Your task to perform on an android device: empty trash in the gmail app Image 0: 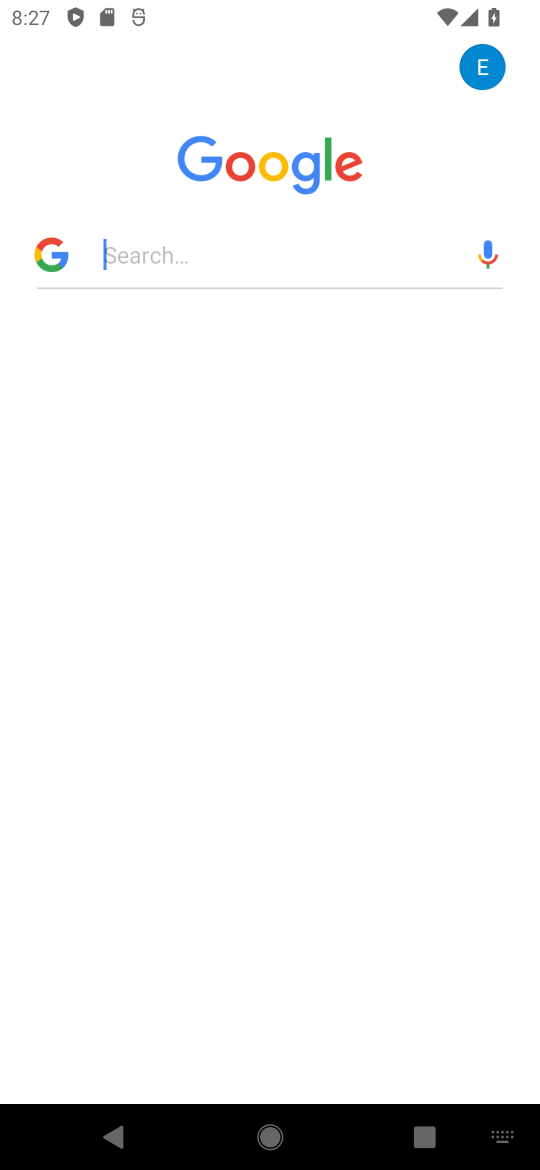
Step 0: press home button
Your task to perform on an android device: empty trash in the gmail app Image 1: 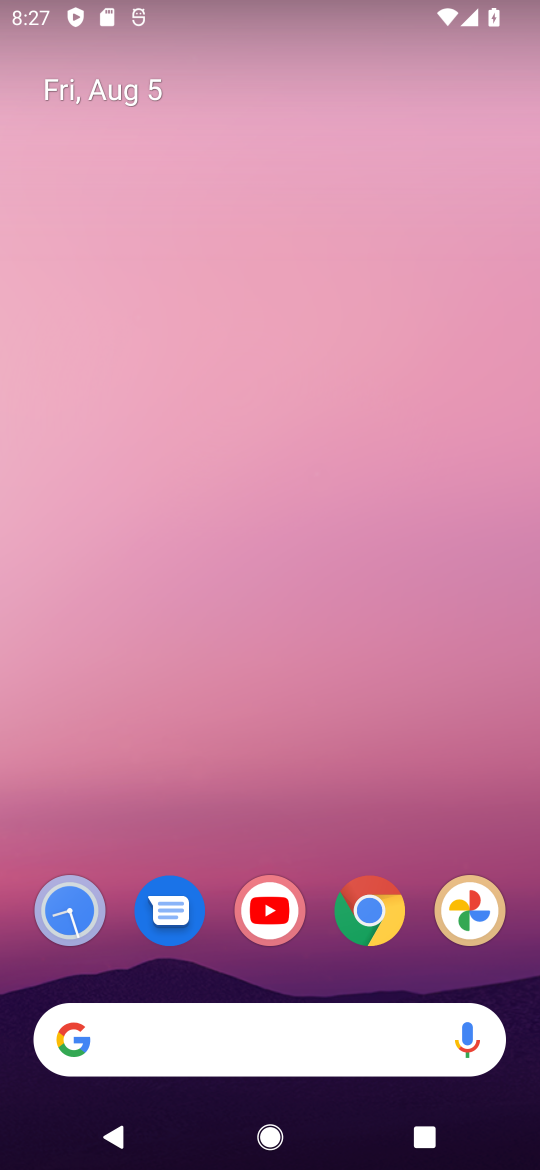
Step 1: drag from (274, 1027) to (503, 143)
Your task to perform on an android device: empty trash in the gmail app Image 2: 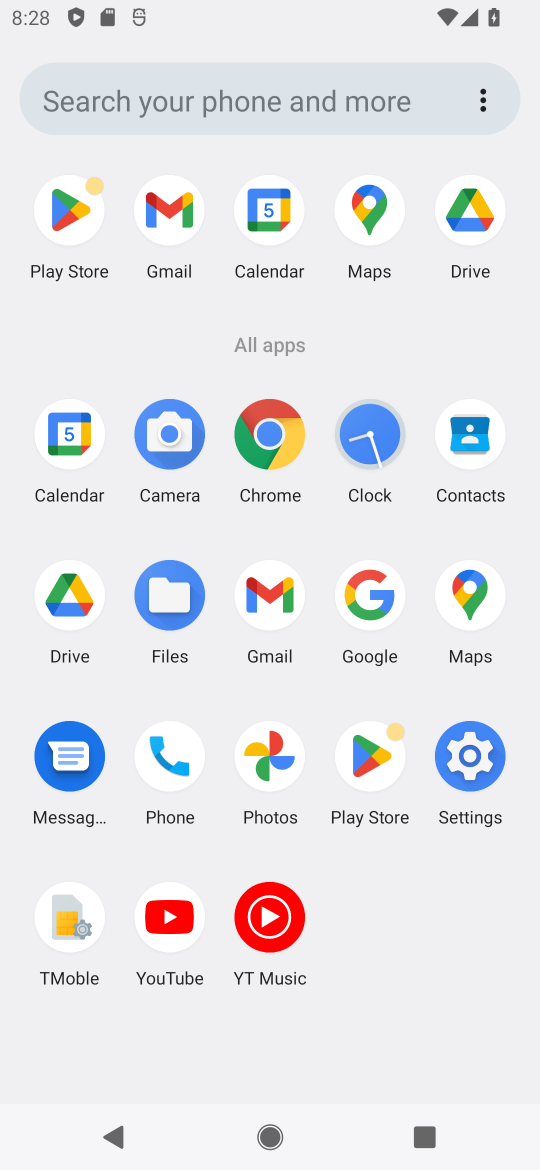
Step 2: click (171, 215)
Your task to perform on an android device: empty trash in the gmail app Image 3: 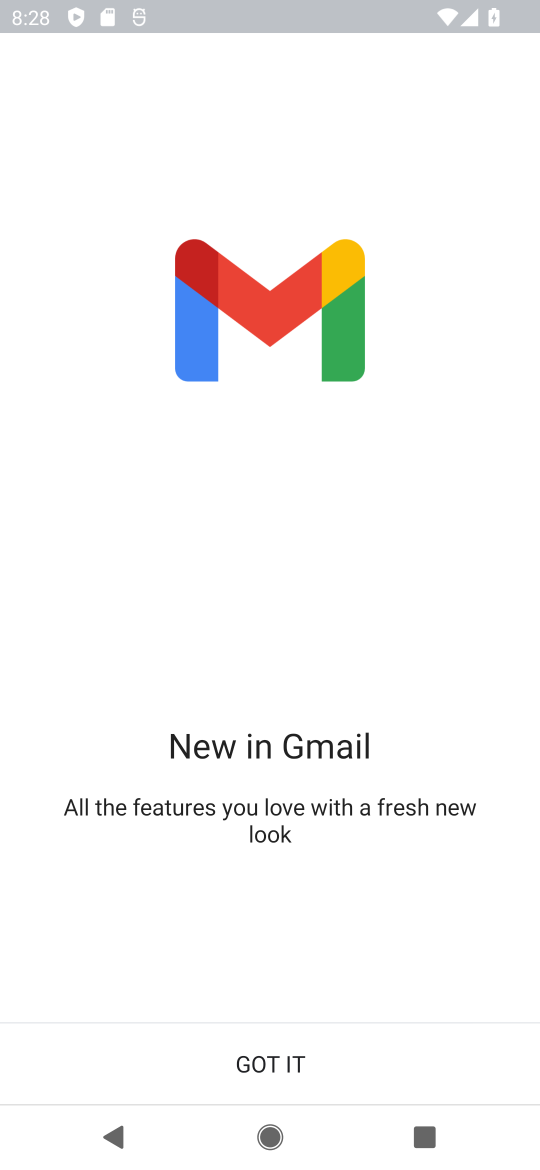
Step 3: click (272, 1070)
Your task to perform on an android device: empty trash in the gmail app Image 4: 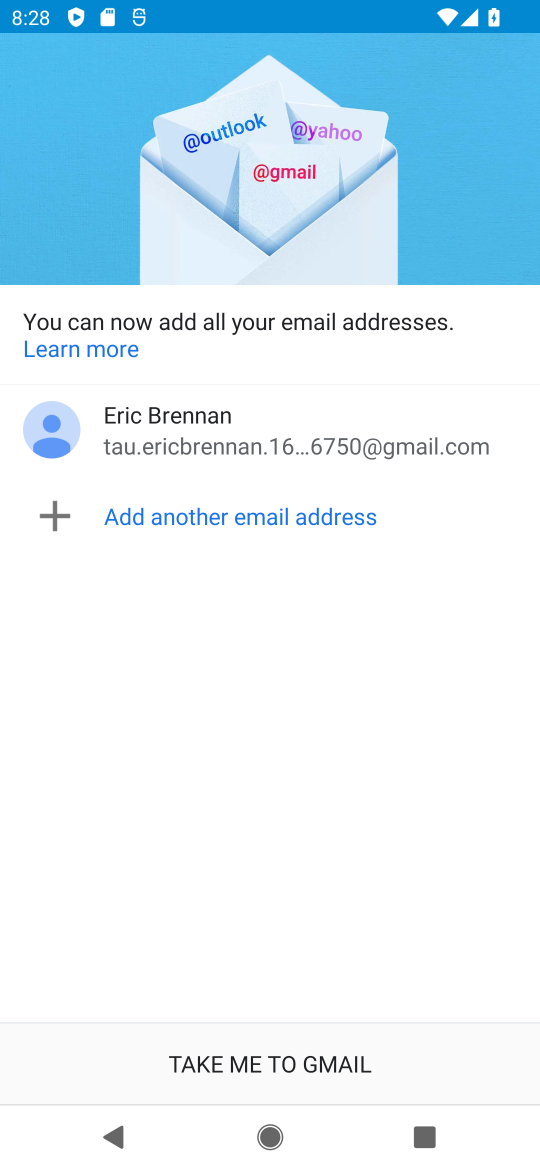
Step 4: click (272, 1070)
Your task to perform on an android device: empty trash in the gmail app Image 5: 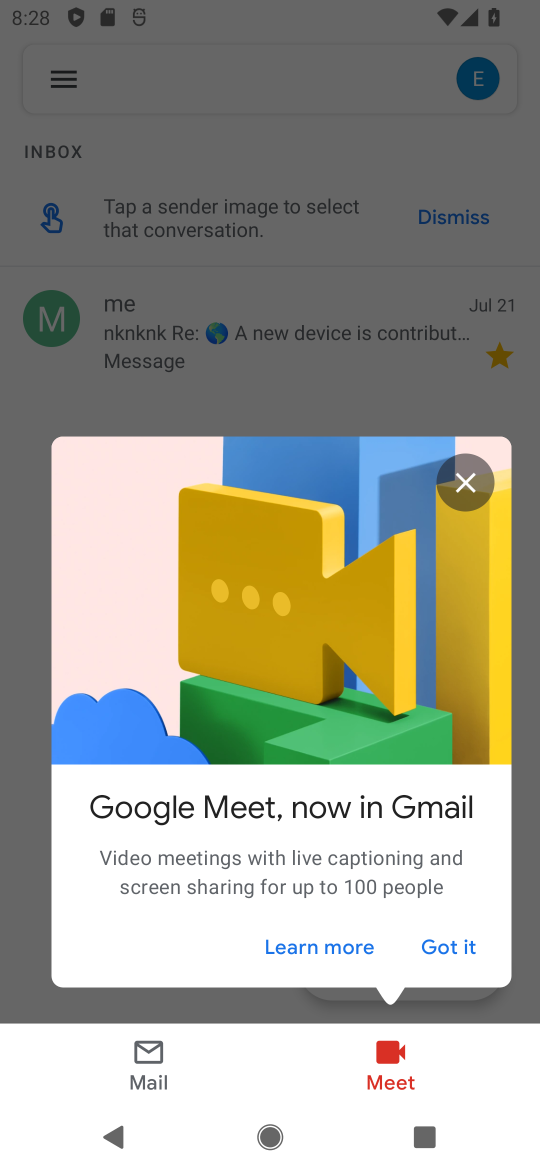
Step 5: click (465, 485)
Your task to perform on an android device: empty trash in the gmail app Image 6: 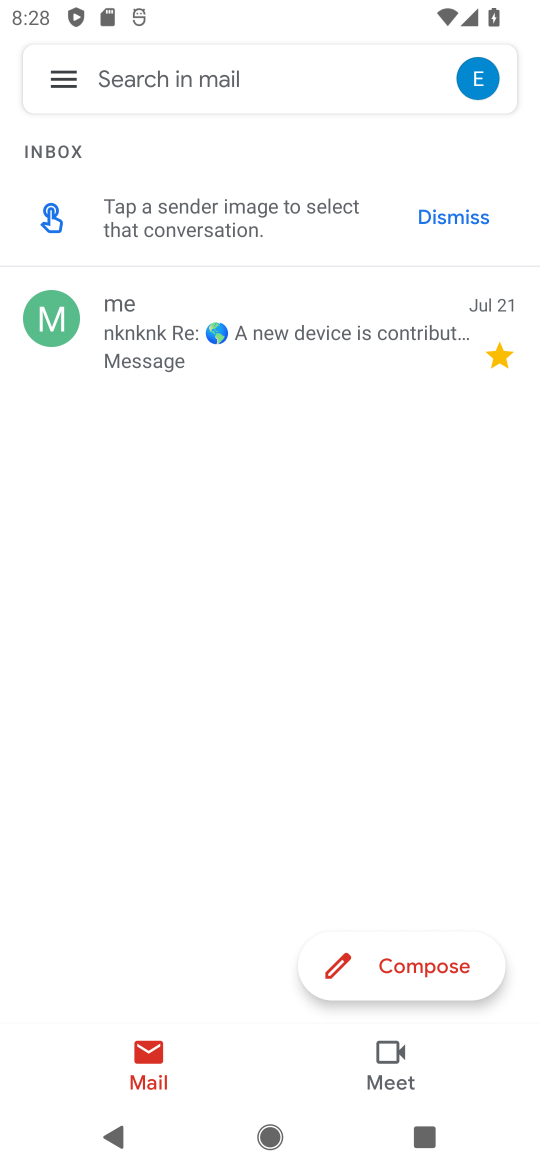
Step 6: click (50, 73)
Your task to perform on an android device: empty trash in the gmail app Image 7: 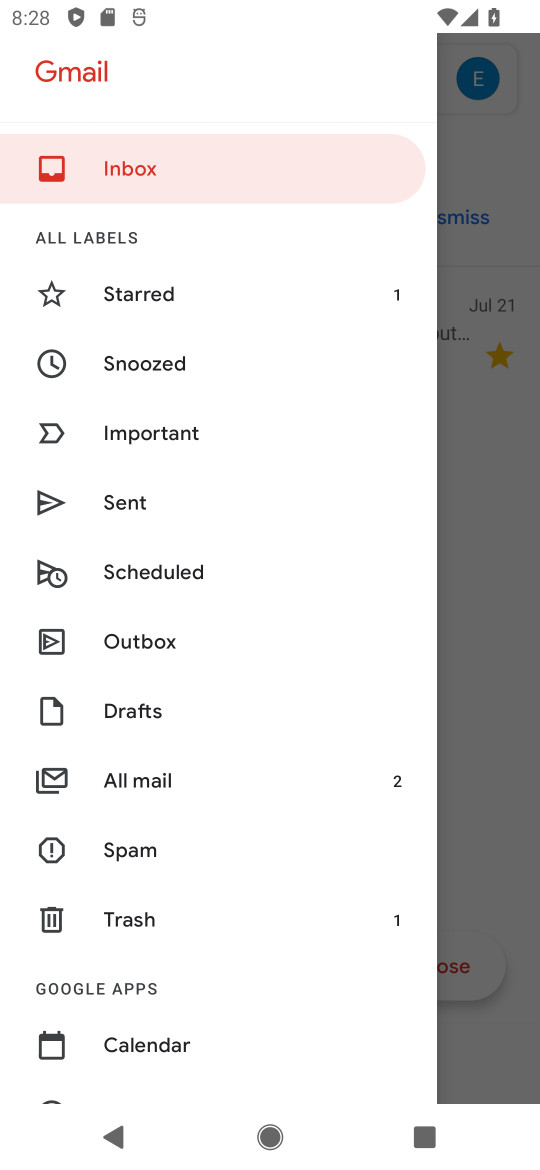
Step 7: click (145, 915)
Your task to perform on an android device: empty trash in the gmail app Image 8: 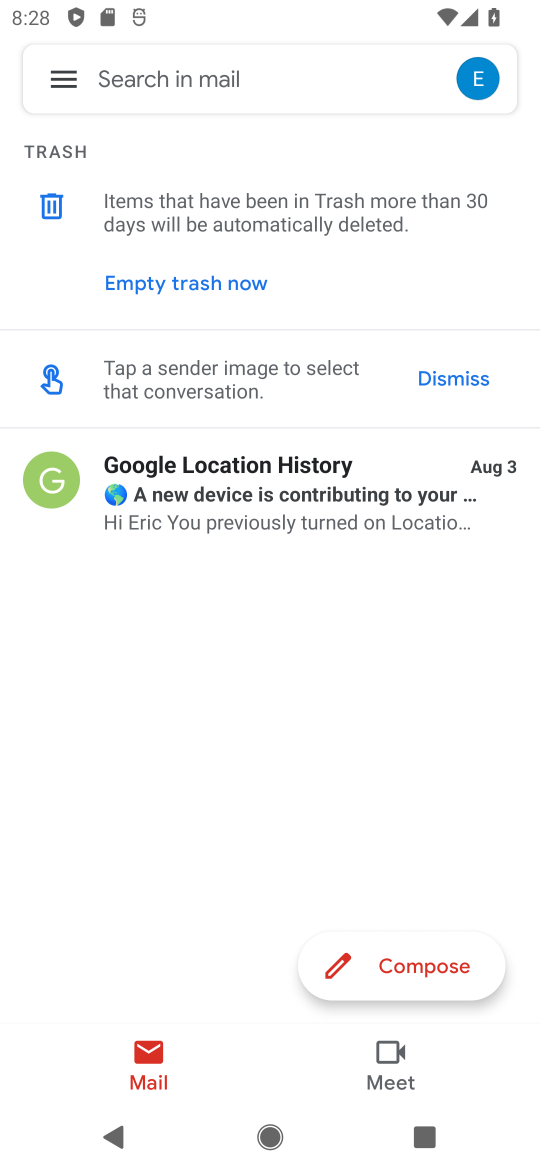
Step 8: click (229, 282)
Your task to perform on an android device: empty trash in the gmail app Image 9: 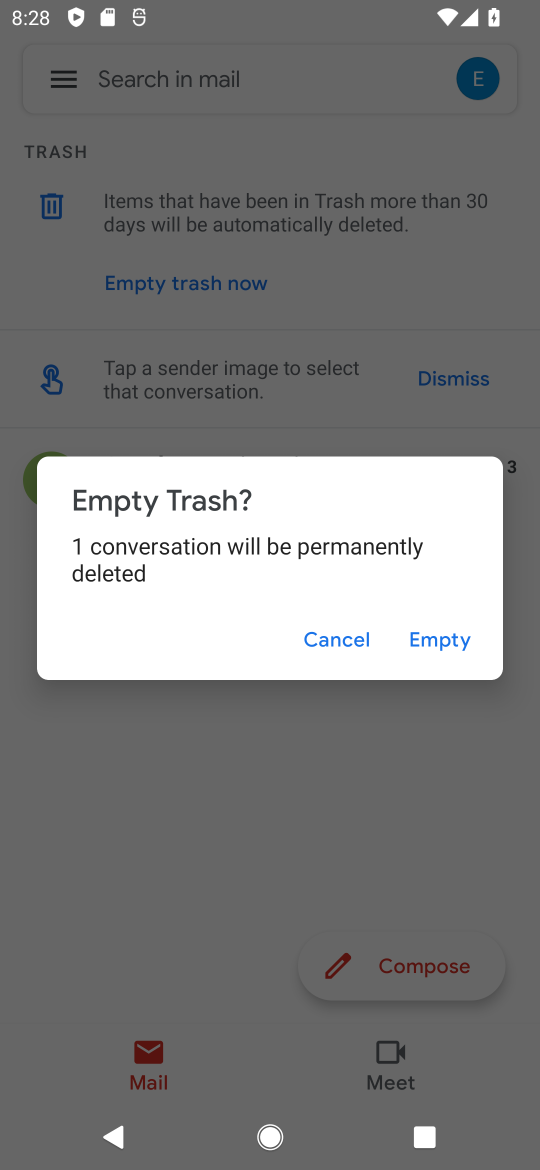
Step 9: click (437, 632)
Your task to perform on an android device: empty trash in the gmail app Image 10: 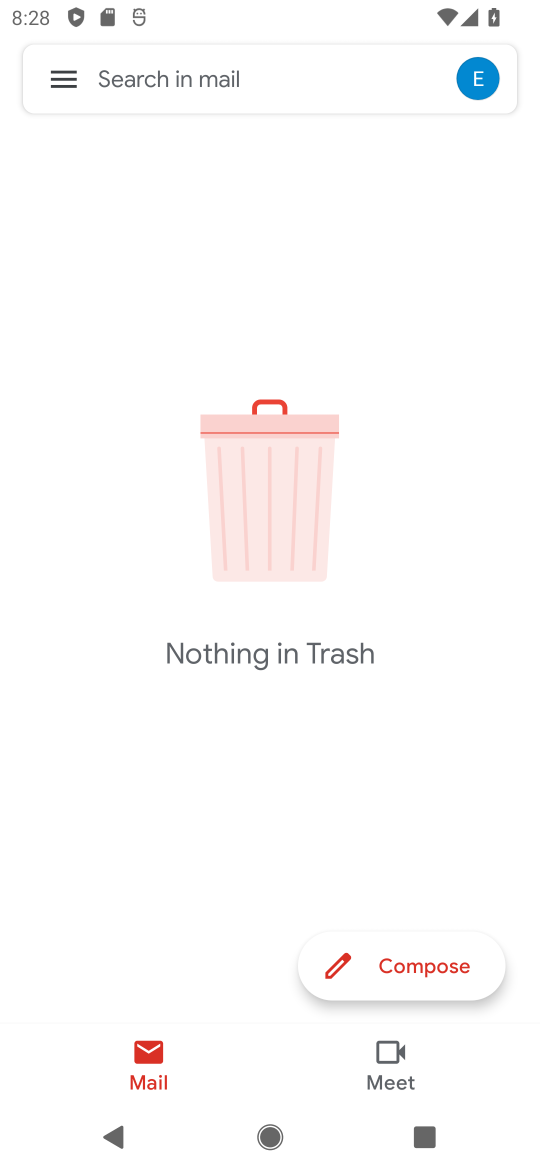
Step 10: task complete